Your task to perform on an android device: change the clock display to digital Image 0: 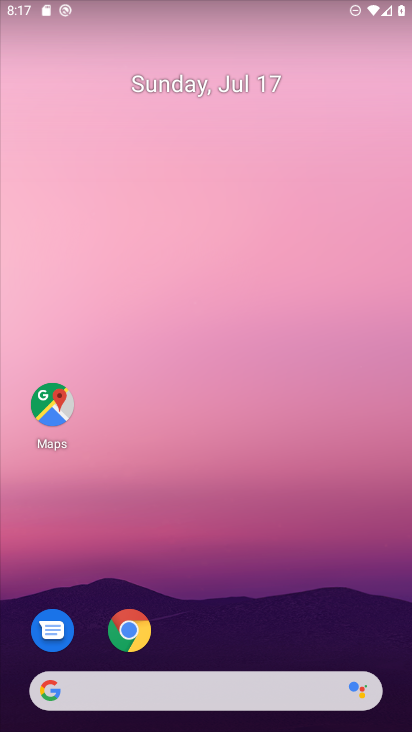
Step 0: drag from (379, 622) to (211, 47)
Your task to perform on an android device: change the clock display to digital Image 1: 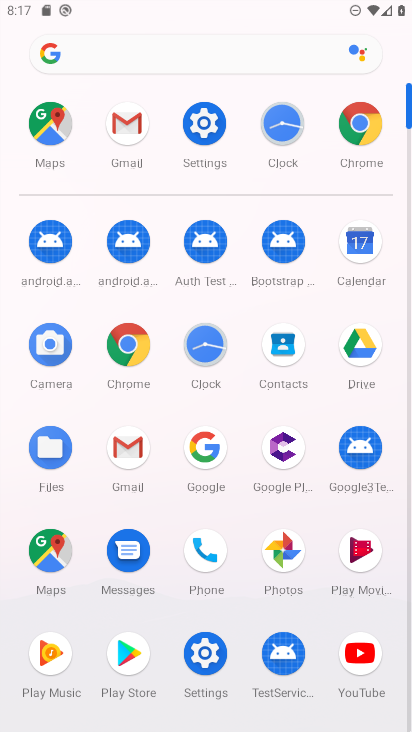
Step 1: click (196, 348)
Your task to perform on an android device: change the clock display to digital Image 2: 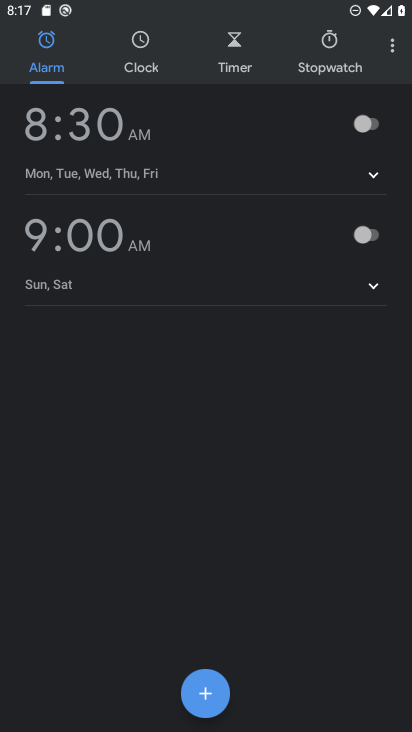
Step 2: click (383, 50)
Your task to perform on an android device: change the clock display to digital Image 3: 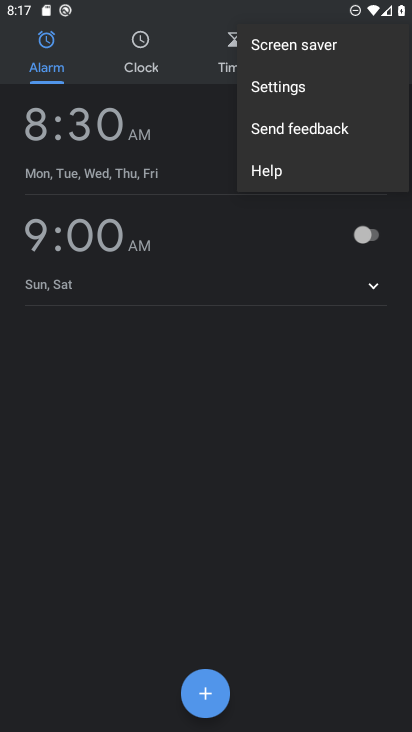
Step 3: click (289, 91)
Your task to perform on an android device: change the clock display to digital Image 4: 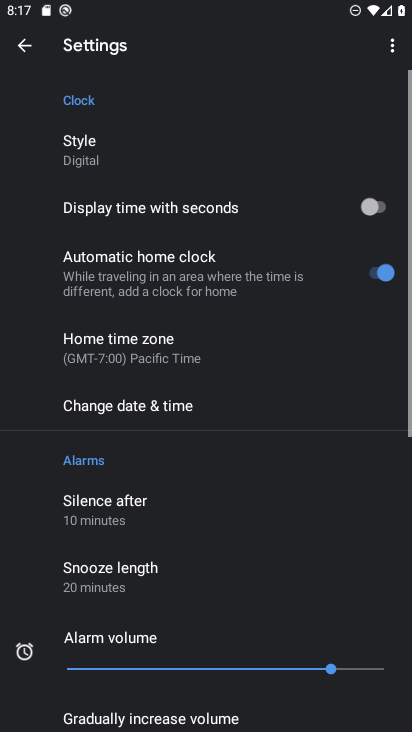
Step 4: click (84, 161)
Your task to perform on an android device: change the clock display to digital Image 5: 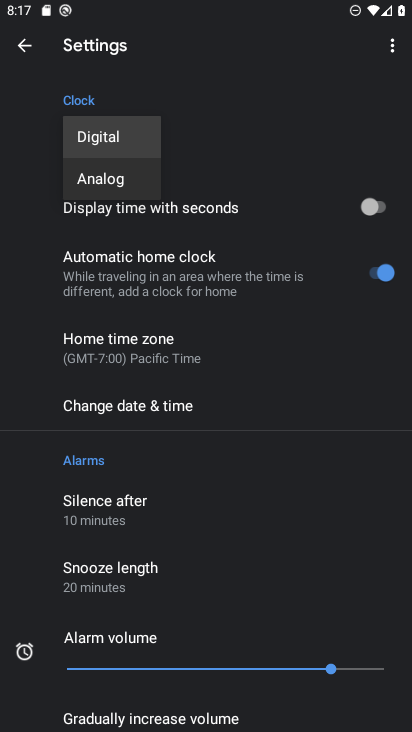
Step 5: click (111, 144)
Your task to perform on an android device: change the clock display to digital Image 6: 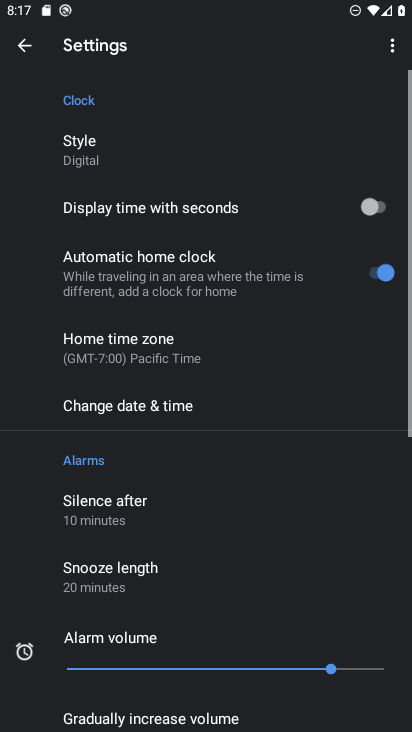
Step 6: task complete